Your task to perform on an android device: Show me the alarms in the clock app Image 0: 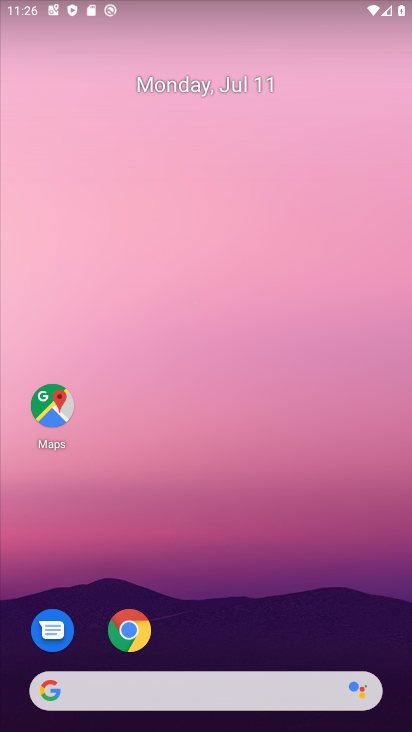
Step 0: drag from (299, 621) to (275, 98)
Your task to perform on an android device: Show me the alarms in the clock app Image 1: 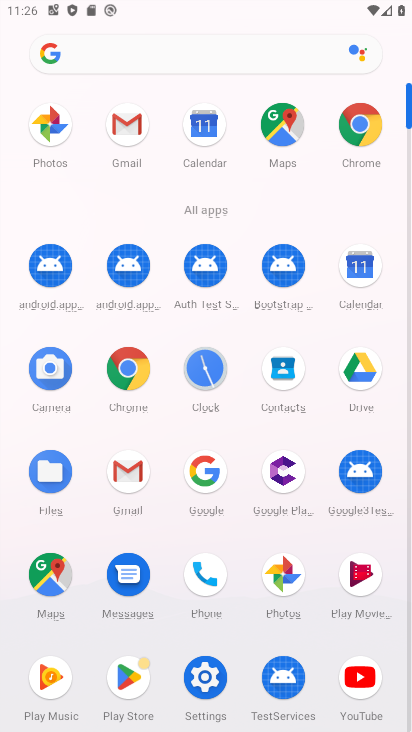
Step 1: click (220, 378)
Your task to perform on an android device: Show me the alarms in the clock app Image 2: 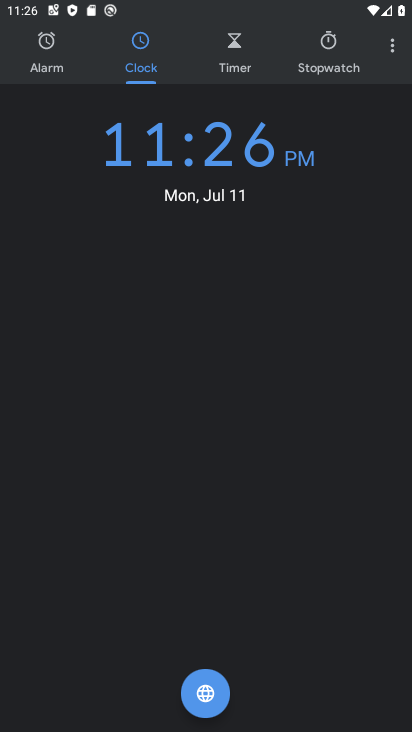
Step 2: click (50, 39)
Your task to perform on an android device: Show me the alarms in the clock app Image 3: 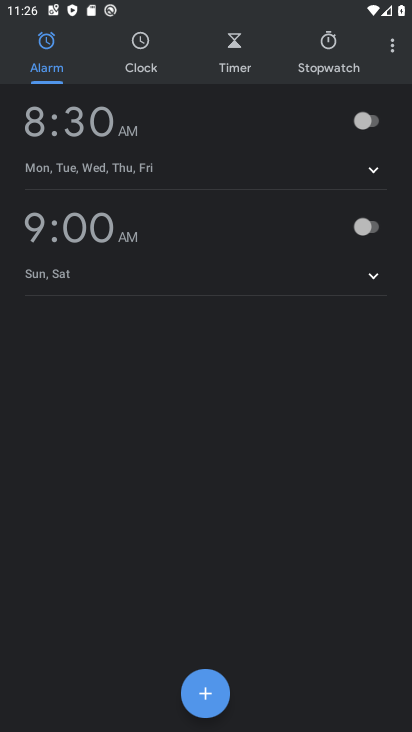
Step 3: task complete